Your task to perform on an android device: Check the news Image 0: 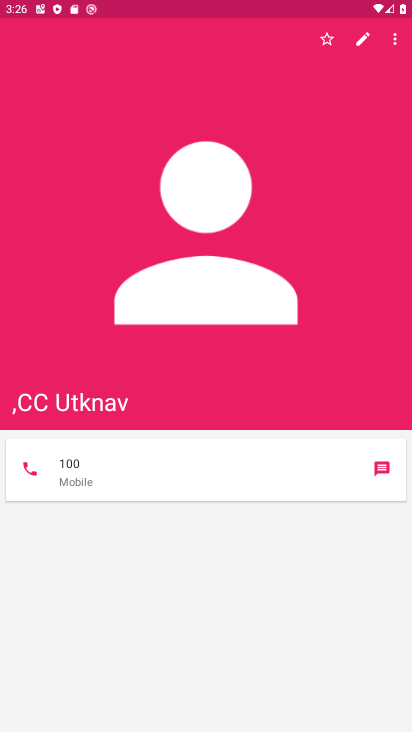
Step 0: press home button
Your task to perform on an android device: Check the news Image 1: 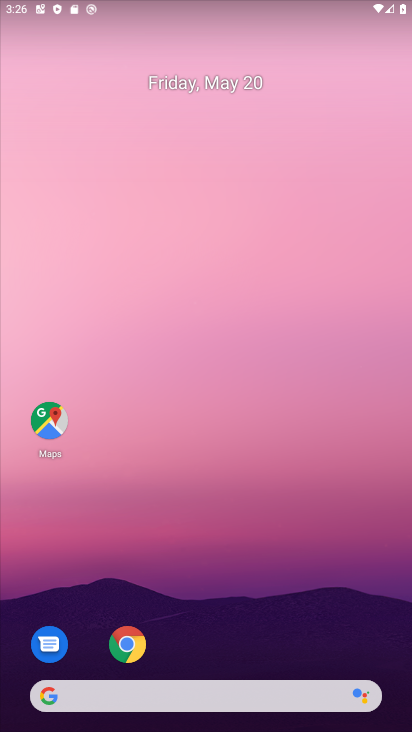
Step 1: click (230, 696)
Your task to perform on an android device: Check the news Image 2: 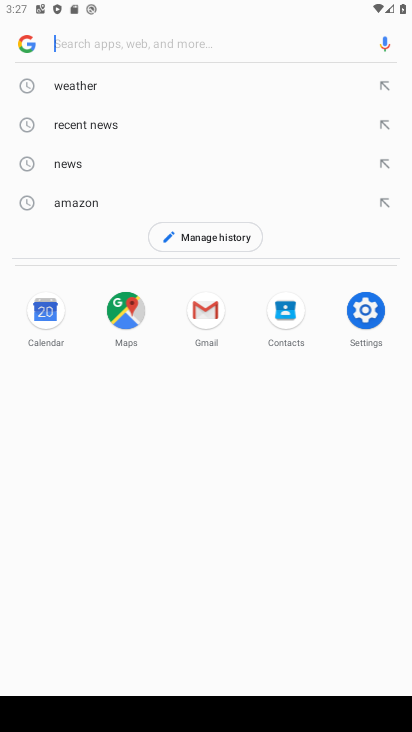
Step 2: click (129, 171)
Your task to perform on an android device: Check the news Image 3: 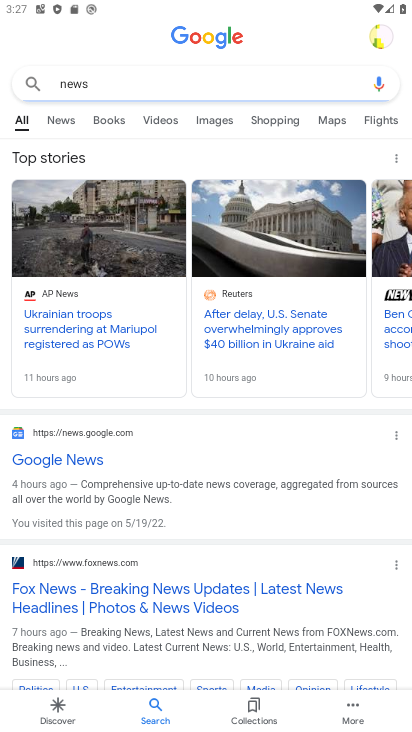
Step 3: task complete